Your task to perform on an android device: See recent photos Image 0: 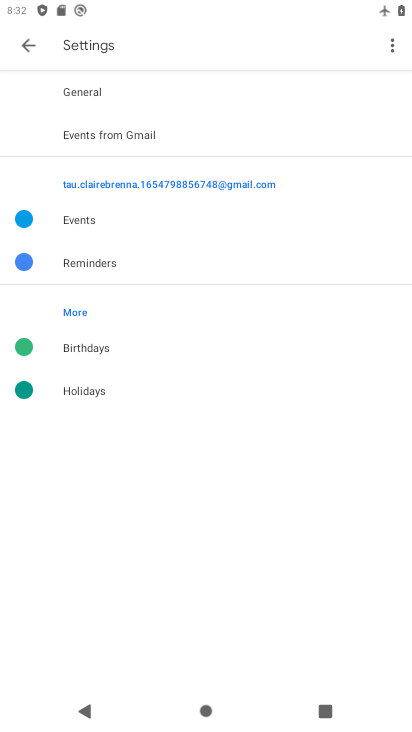
Step 0: press home button
Your task to perform on an android device: See recent photos Image 1: 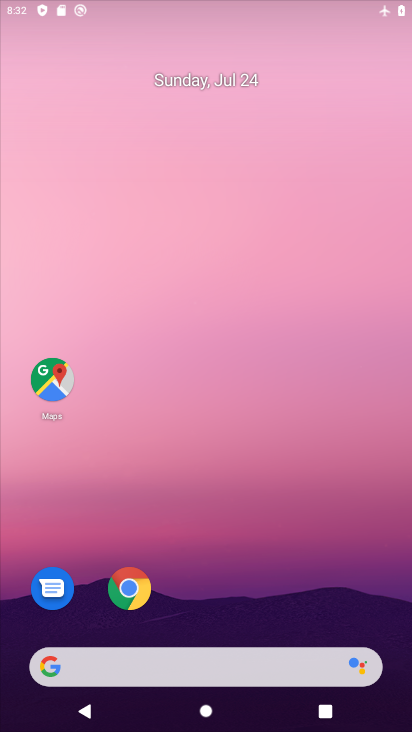
Step 1: drag from (254, 622) to (257, 165)
Your task to perform on an android device: See recent photos Image 2: 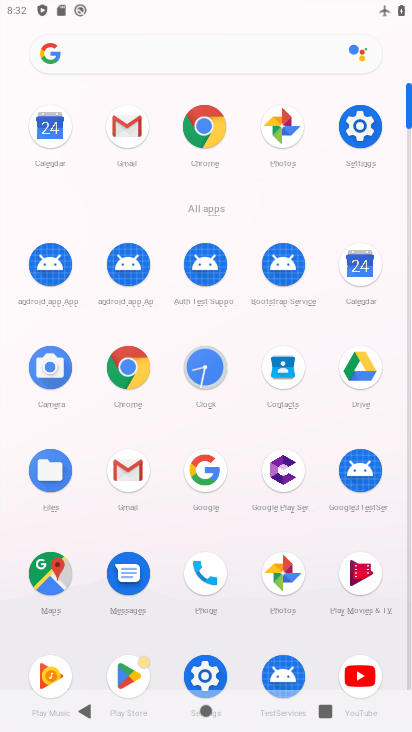
Step 2: click (275, 567)
Your task to perform on an android device: See recent photos Image 3: 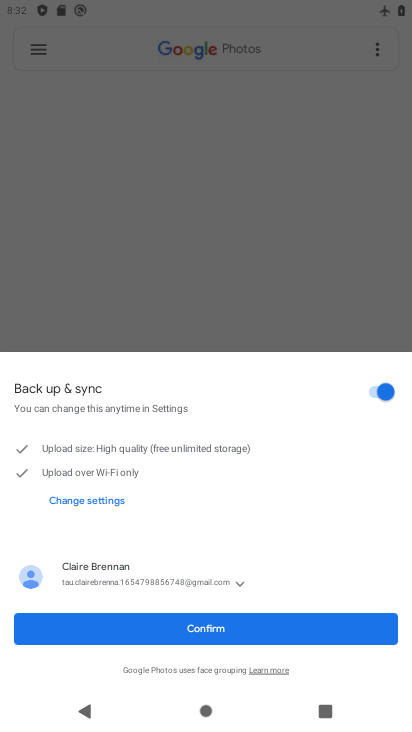
Step 3: click (214, 622)
Your task to perform on an android device: See recent photos Image 4: 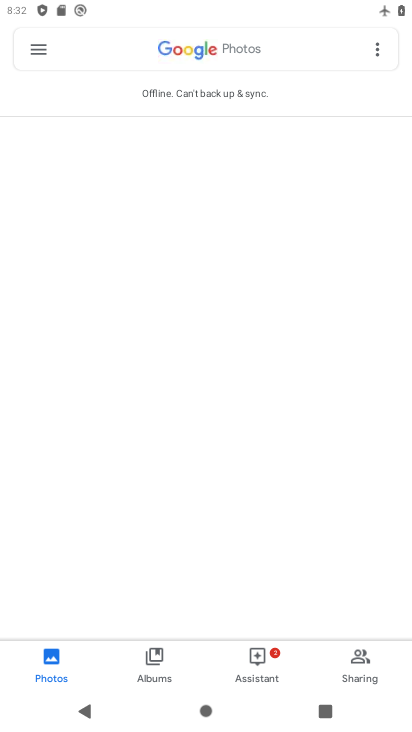
Step 4: click (144, 664)
Your task to perform on an android device: See recent photos Image 5: 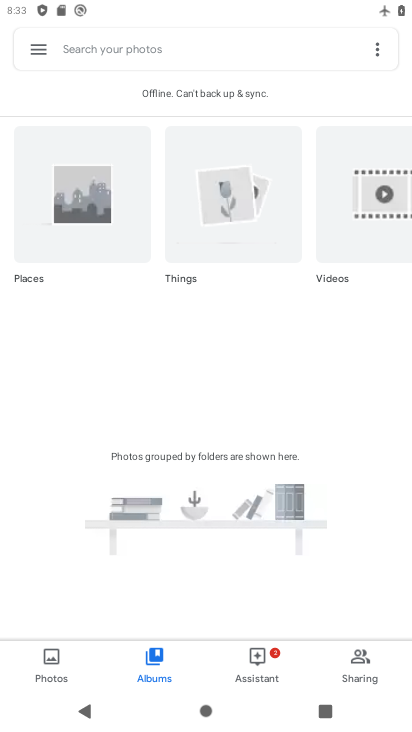
Step 5: task complete